Your task to perform on an android device: What is the news today? Image 0: 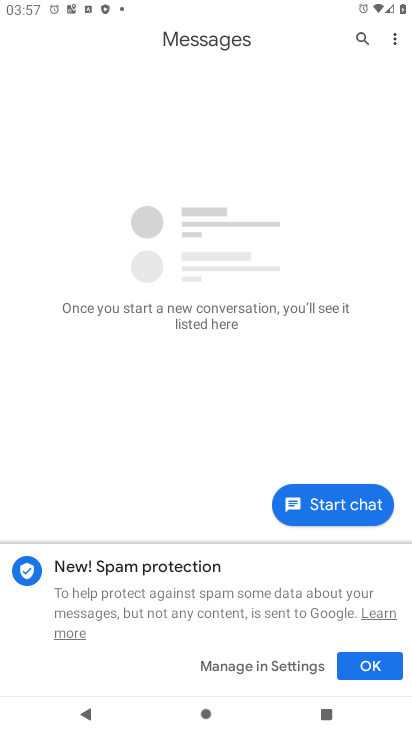
Step 0: press home button
Your task to perform on an android device: What is the news today? Image 1: 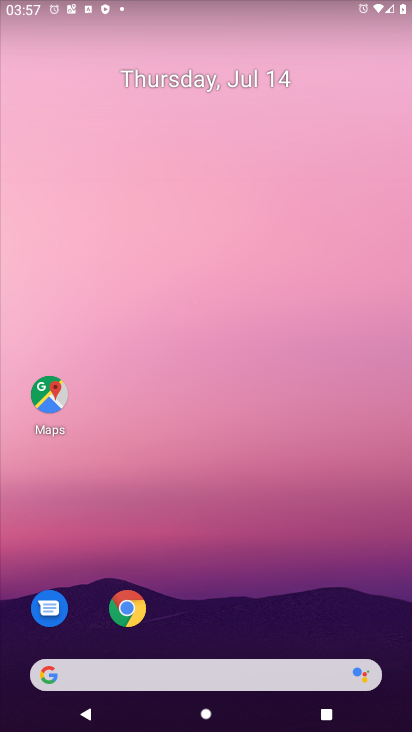
Step 1: task complete